Your task to perform on an android device: Open Chrome and go to settings Image 0: 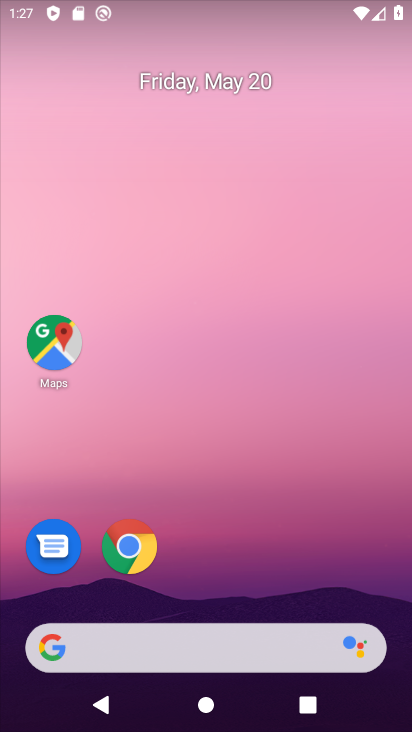
Step 0: drag from (288, 576) to (204, 113)
Your task to perform on an android device: Open Chrome and go to settings Image 1: 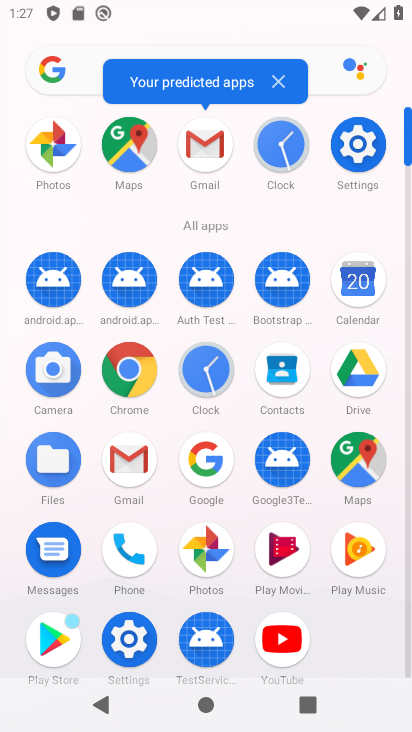
Step 1: click (130, 355)
Your task to perform on an android device: Open Chrome and go to settings Image 2: 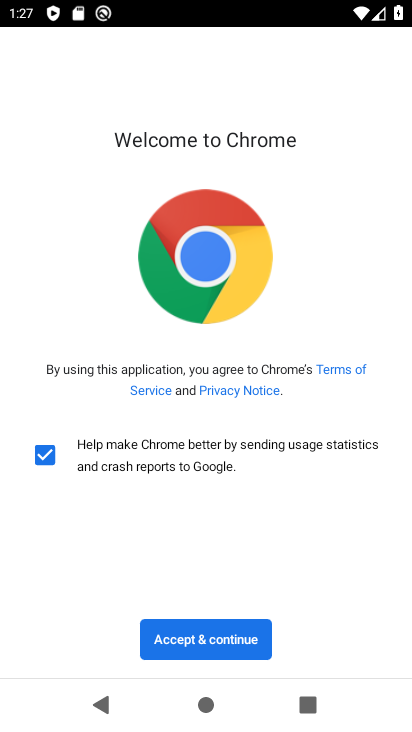
Step 2: click (222, 644)
Your task to perform on an android device: Open Chrome and go to settings Image 3: 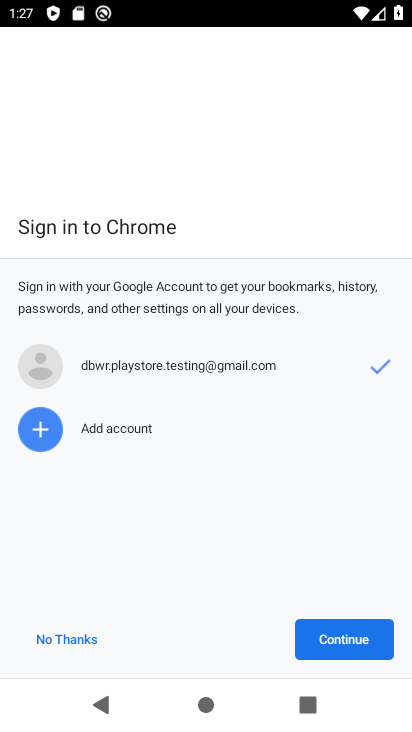
Step 3: click (345, 625)
Your task to perform on an android device: Open Chrome and go to settings Image 4: 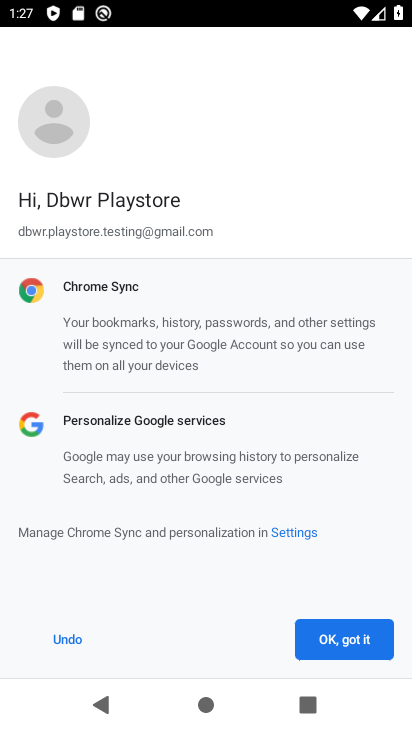
Step 4: click (347, 639)
Your task to perform on an android device: Open Chrome and go to settings Image 5: 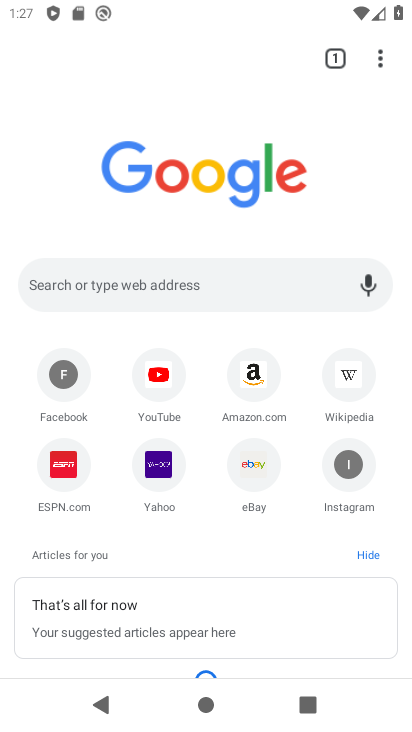
Step 5: click (383, 62)
Your task to perform on an android device: Open Chrome and go to settings Image 6: 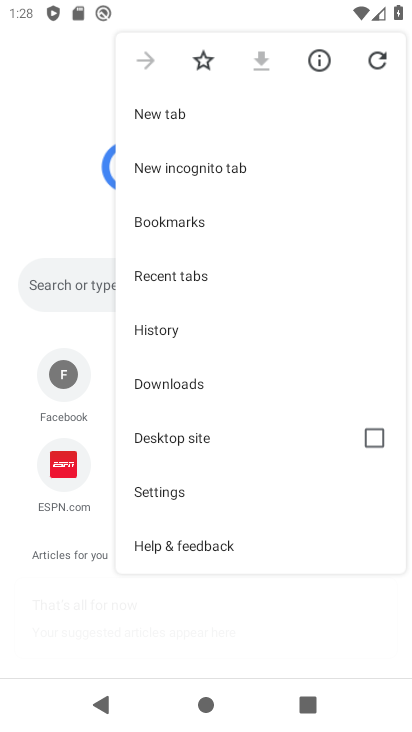
Step 6: click (235, 501)
Your task to perform on an android device: Open Chrome and go to settings Image 7: 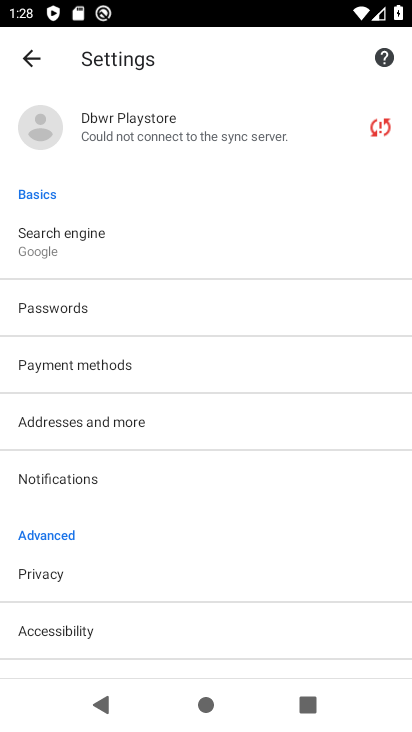
Step 7: task complete